Your task to perform on an android device: create a new album in the google photos Image 0: 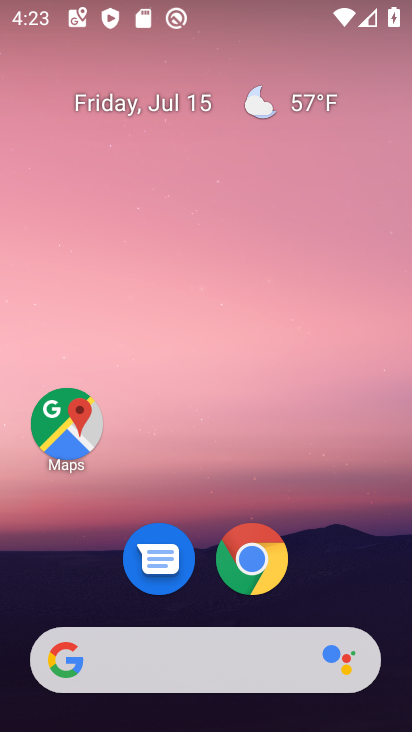
Step 0: drag from (79, 598) to (202, 11)
Your task to perform on an android device: create a new album in the google photos Image 1: 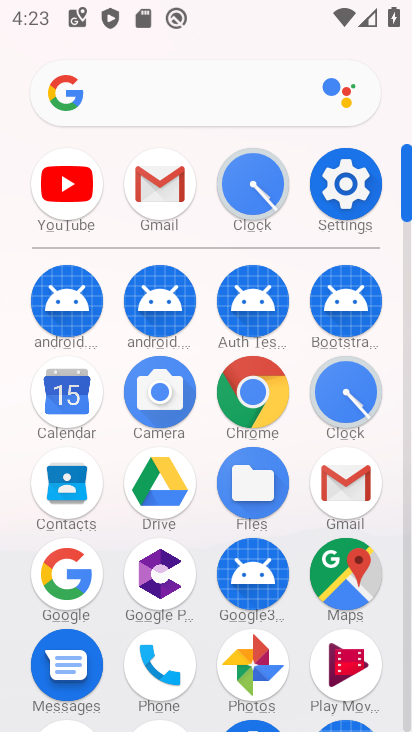
Step 1: click (248, 674)
Your task to perform on an android device: create a new album in the google photos Image 2: 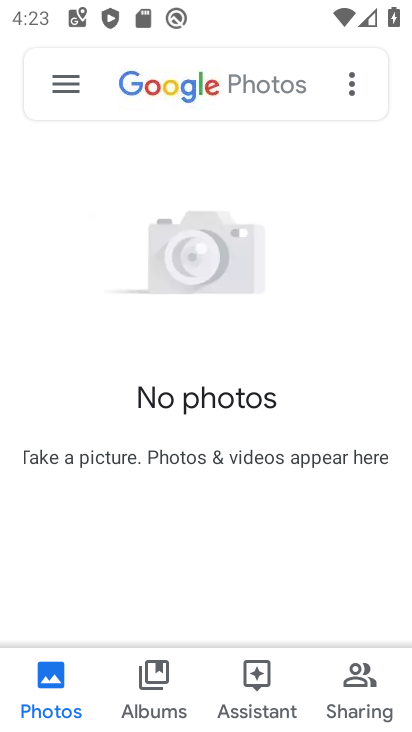
Step 2: click (149, 679)
Your task to perform on an android device: create a new album in the google photos Image 3: 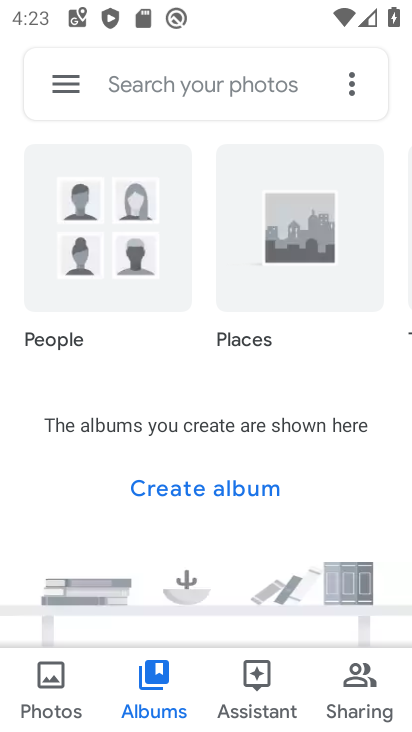
Step 3: click (181, 477)
Your task to perform on an android device: create a new album in the google photos Image 4: 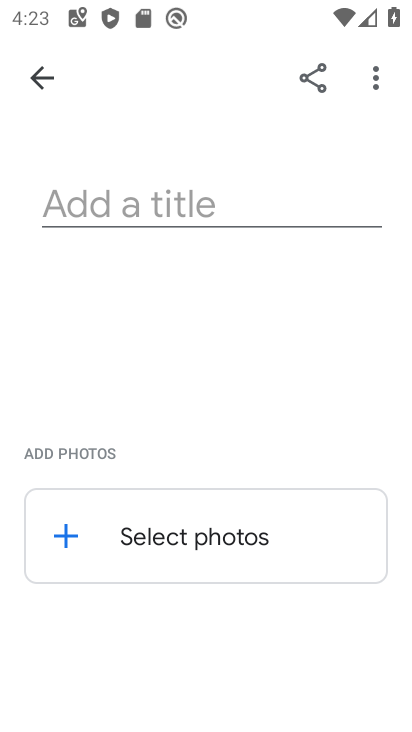
Step 4: click (135, 216)
Your task to perform on an android device: create a new album in the google photos Image 5: 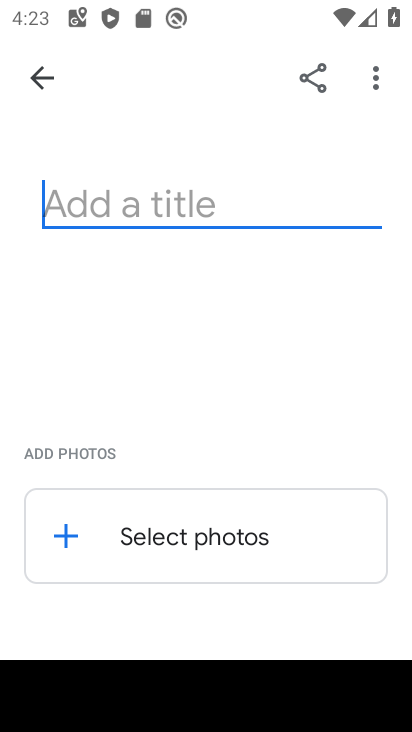
Step 5: type "ghgrh"
Your task to perform on an android device: create a new album in the google photos Image 6: 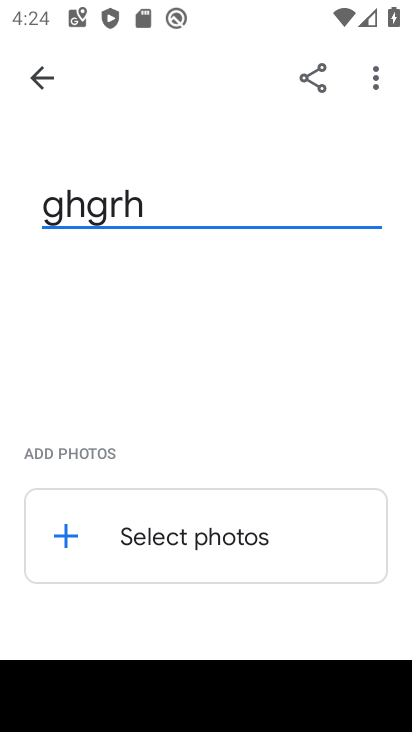
Step 6: click (171, 531)
Your task to perform on an android device: create a new album in the google photos Image 7: 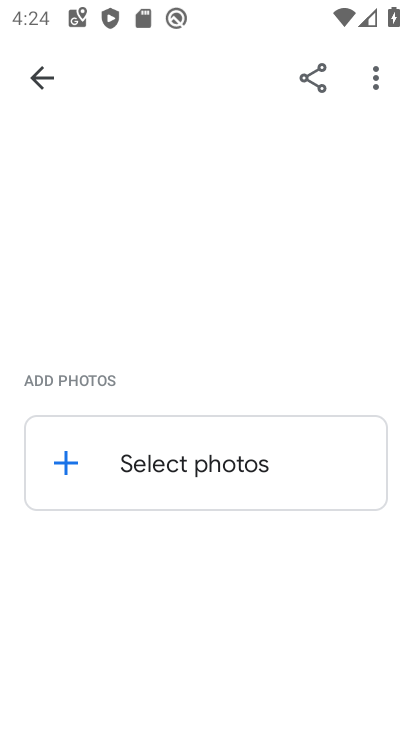
Step 7: click (142, 474)
Your task to perform on an android device: create a new album in the google photos Image 8: 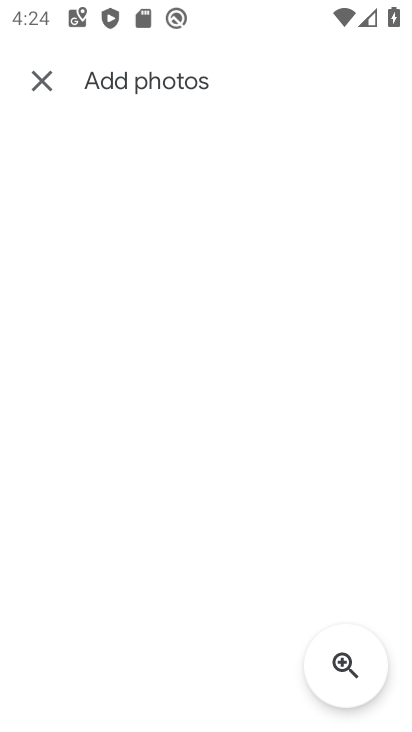
Step 8: task complete